Your task to perform on an android device: Go to eBay Image 0: 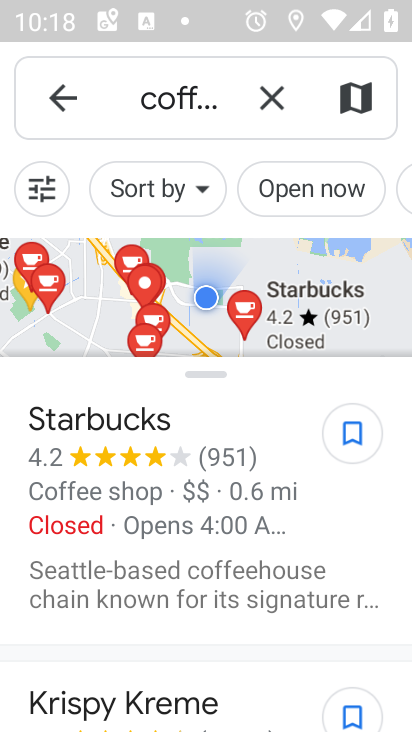
Step 0: press home button
Your task to perform on an android device: Go to eBay Image 1: 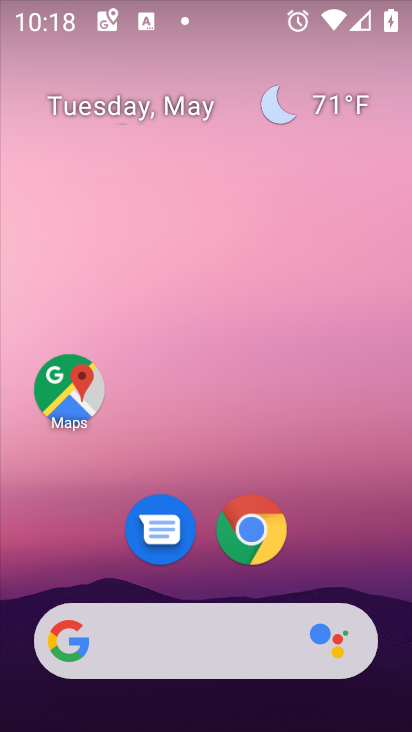
Step 1: click (256, 542)
Your task to perform on an android device: Go to eBay Image 2: 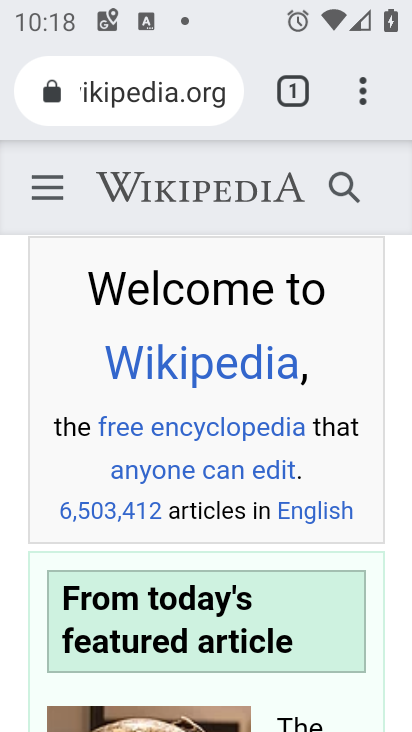
Step 2: click (185, 103)
Your task to perform on an android device: Go to eBay Image 3: 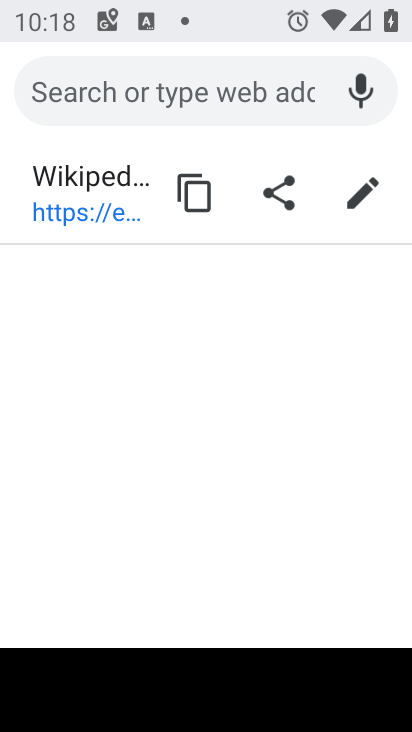
Step 3: type "ebay"
Your task to perform on an android device: Go to eBay Image 4: 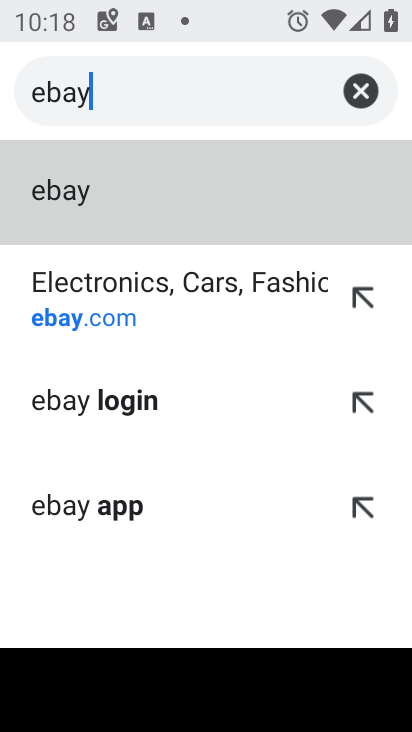
Step 4: click (208, 292)
Your task to perform on an android device: Go to eBay Image 5: 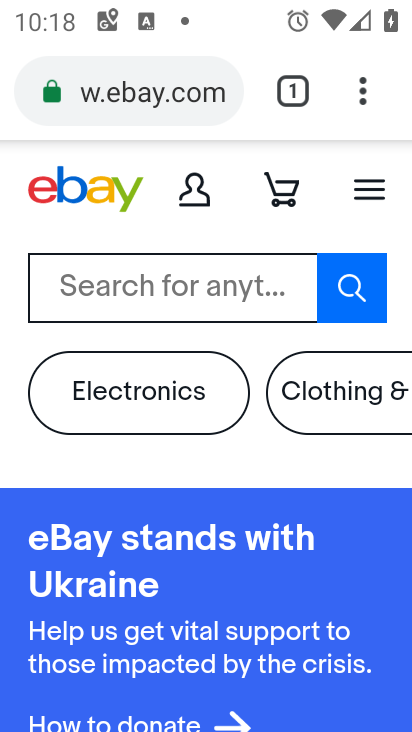
Step 5: task complete